Your task to perform on an android device: search for starred emails in the gmail app Image 0: 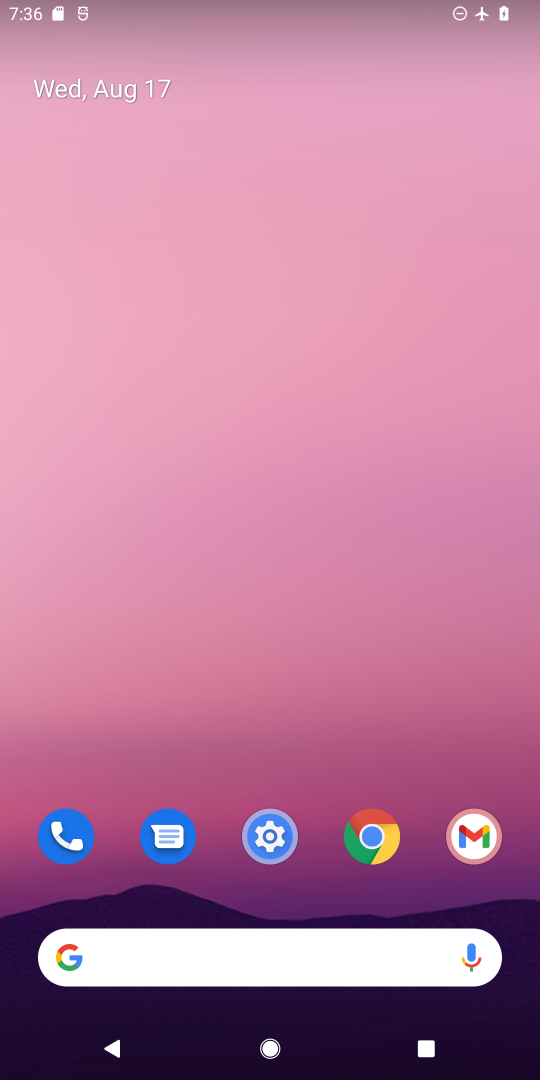
Step 0: drag from (196, 891) to (310, 287)
Your task to perform on an android device: search for starred emails in the gmail app Image 1: 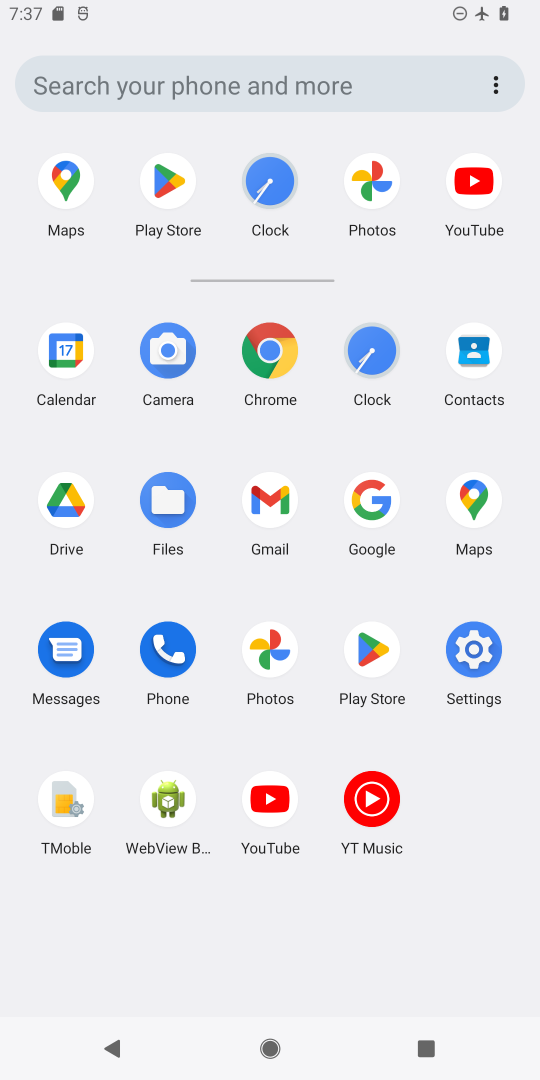
Step 1: click (265, 497)
Your task to perform on an android device: search for starred emails in the gmail app Image 2: 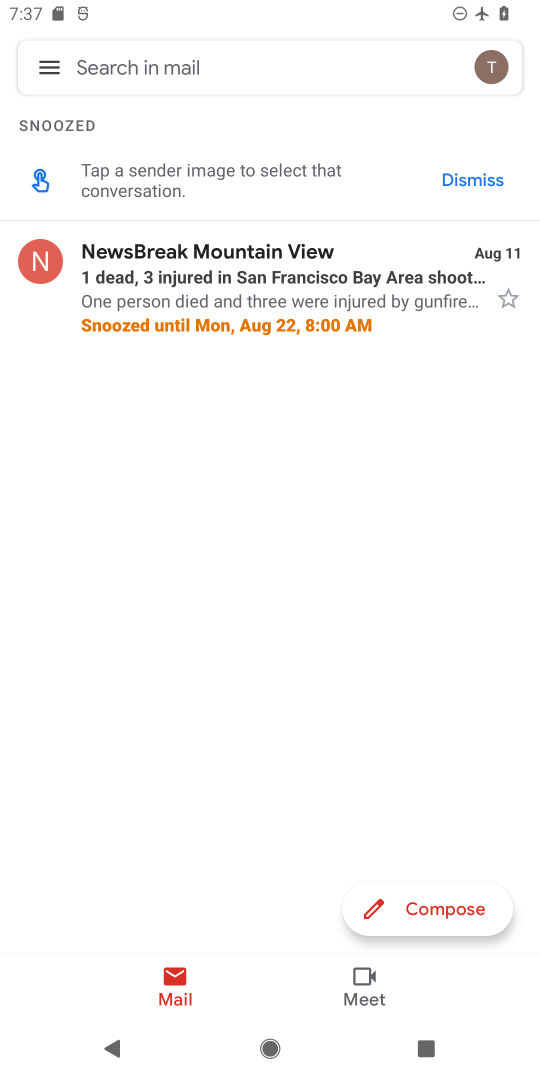
Step 2: click (41, 78)
Your task to perform on an android device: search for starred emails in the gmail app Image 3: 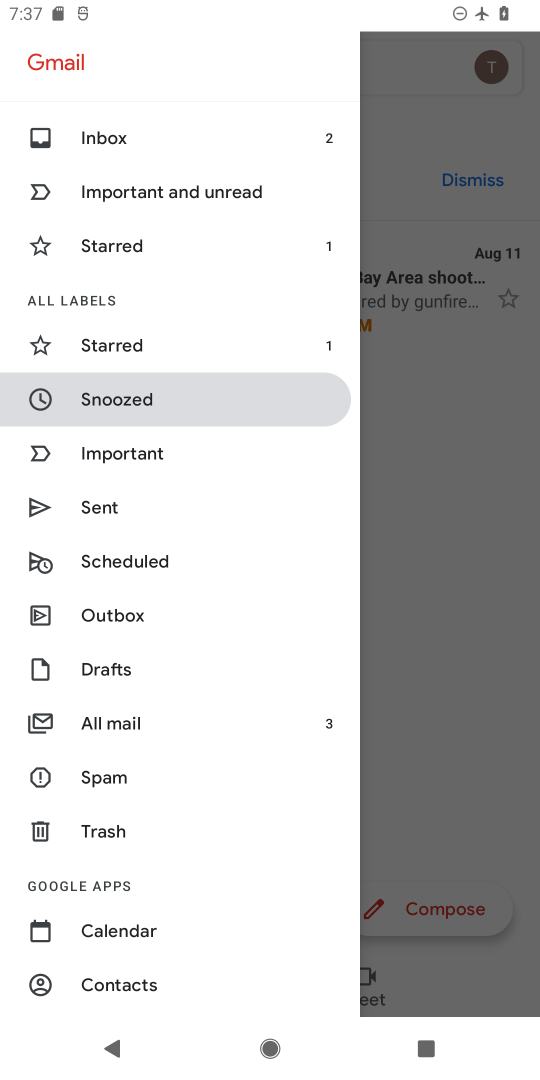
Step 3: click (137, 249)
Your task to perform on an android device: search for starred emails in the gmail app Image 4: 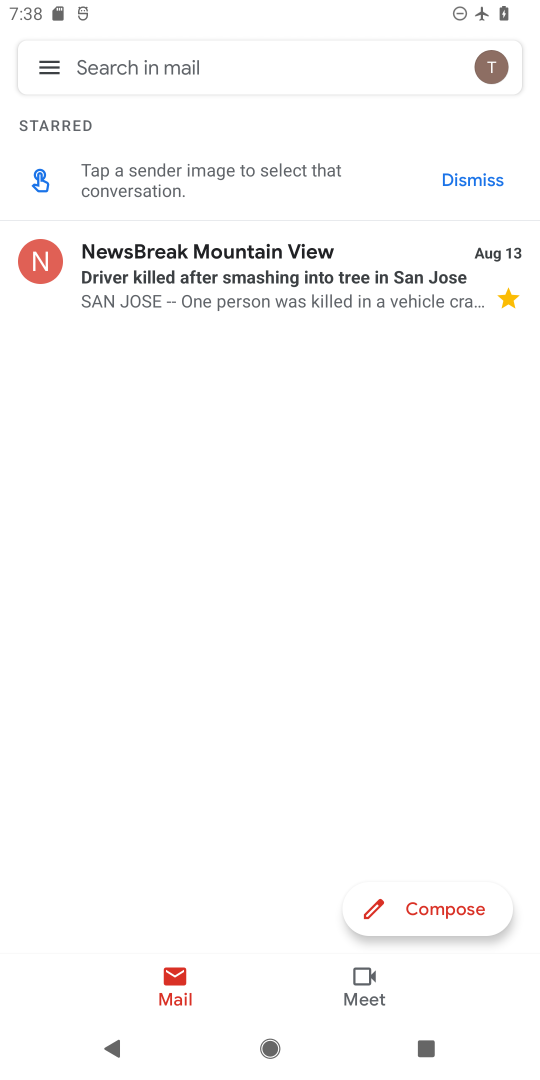
Step 4: task complete